Your task to perform on an android device: Go to Android settings Image 0: 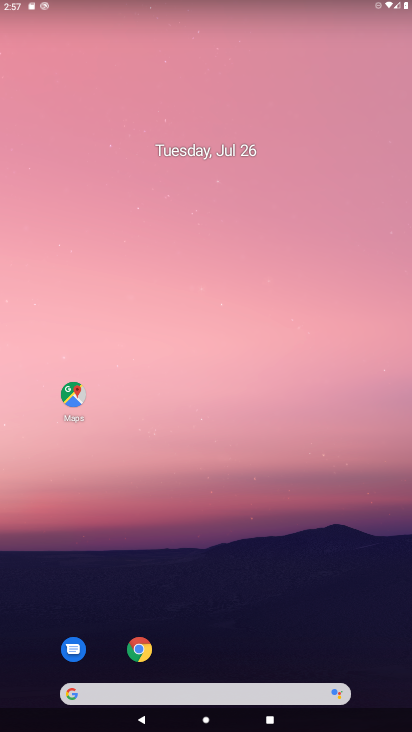
Step 0: drag from (209, 703) to (222, 33)
Your task to perform on an android device: Go to Android settings Image 1: 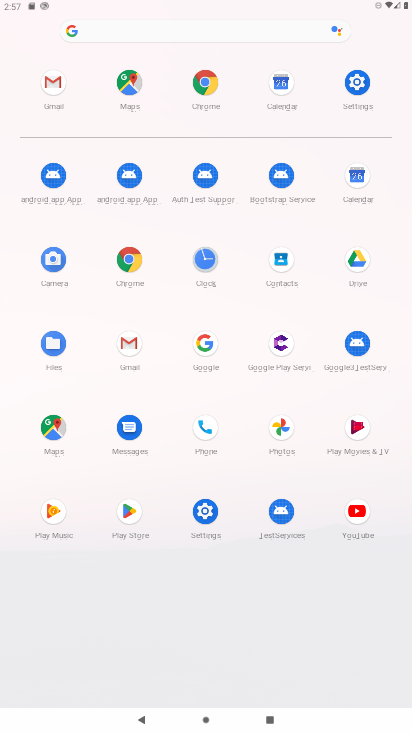
Step 1: click (201, 511)
Your task to perform on an android device: Go to Android settings Image 2: 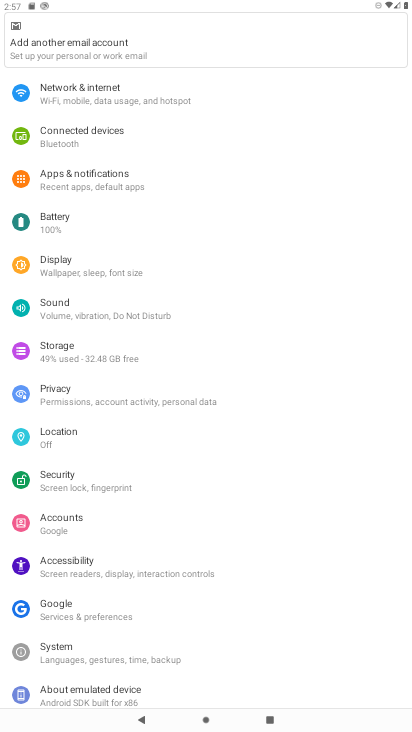
Step 2: drag from (147, 628) to (193, 118)
Your task to perform on an android device: Go to Android settings Image 3: 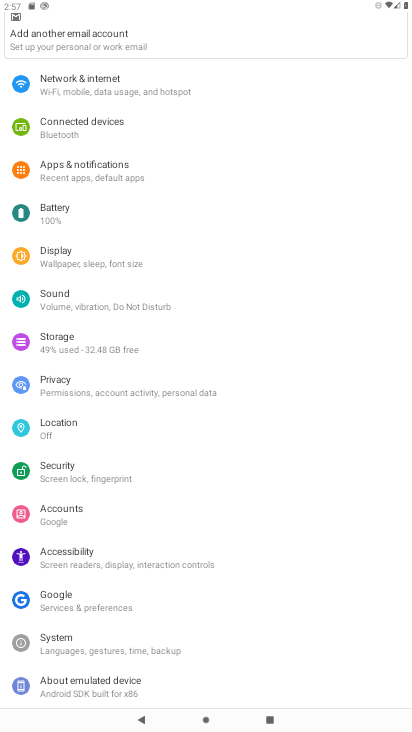
Step 3: click (116, 691)
Your task to perform on an android device: Go to Android settings Image 4: 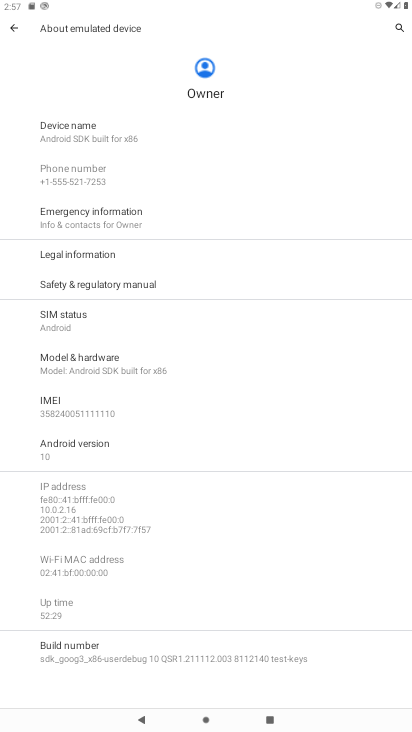
Step 4: task complete